Your task to perform on an android device: all mails in gmail Image 0: 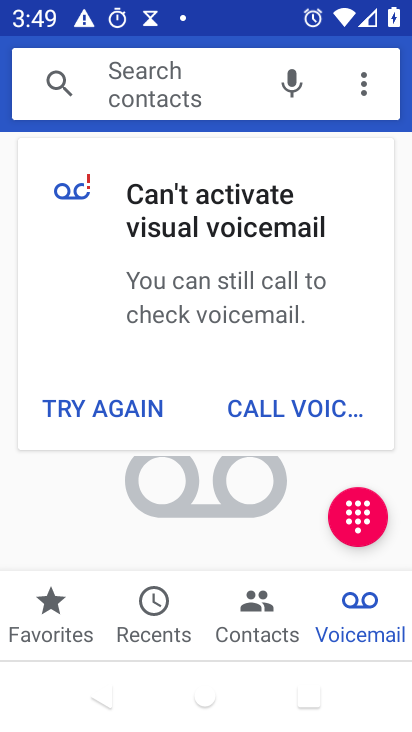
Step 0: press home button
Your task to perform on an android device: all mails in gmail Image 1: 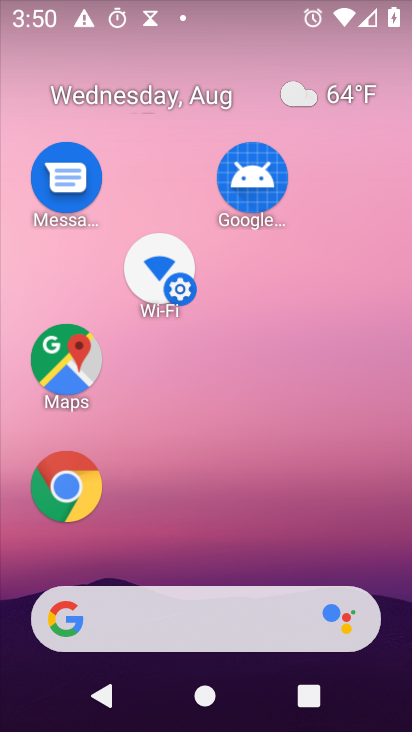
Step 1: drag from (297, 568) to (251, 132)
Your task to perform on an android device: all mails in gmail Image 2: 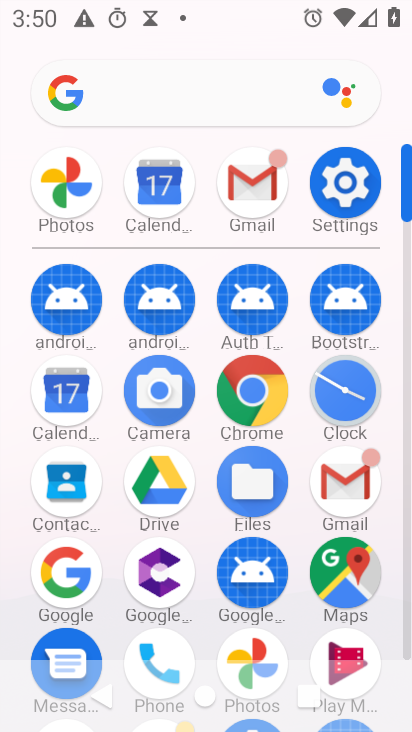
Step 2: click (358, 477)
Your task to perform on an android device: all mails in gmail Image 3: 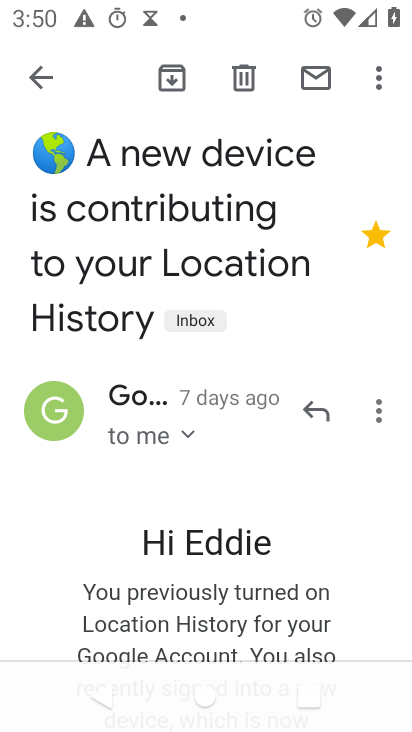
Step 3: press back button
Your task to perform on an android device: all mails in gmail Image 4: 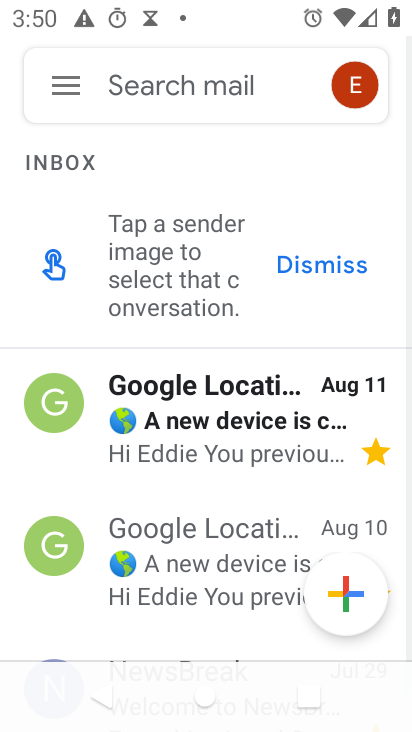
Step 4: click (54, 94)
Your task to perform on an android device: all mails in gmail Image 5: 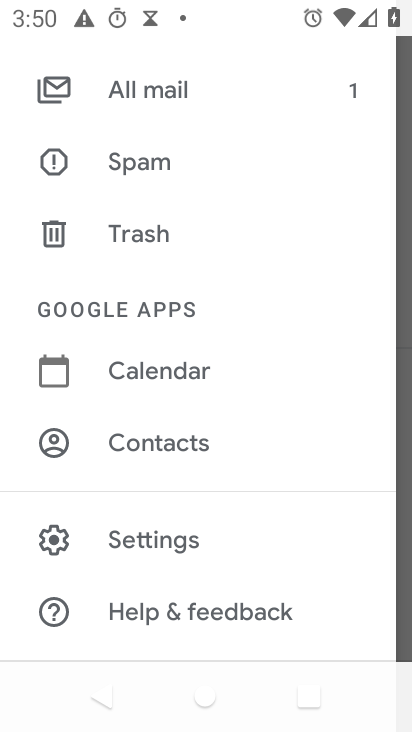
Step 5: click (149, 98)
Your task to perform on an android device: all mails in gmail Image 6: 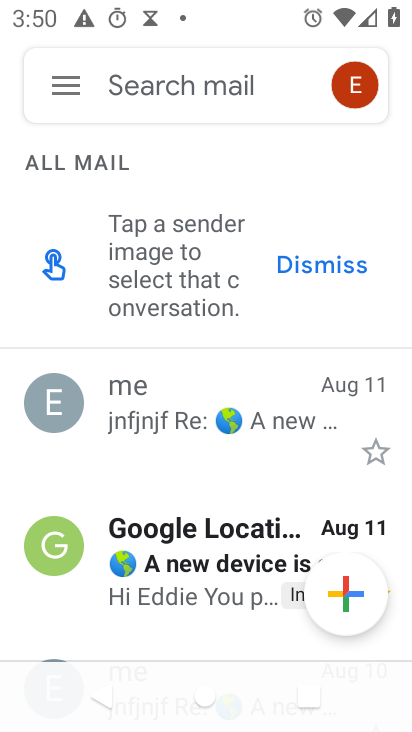
Step 6: task complete